Your task to perform on an android device: Open Google Chrome and open the bookmarks view Image 0: 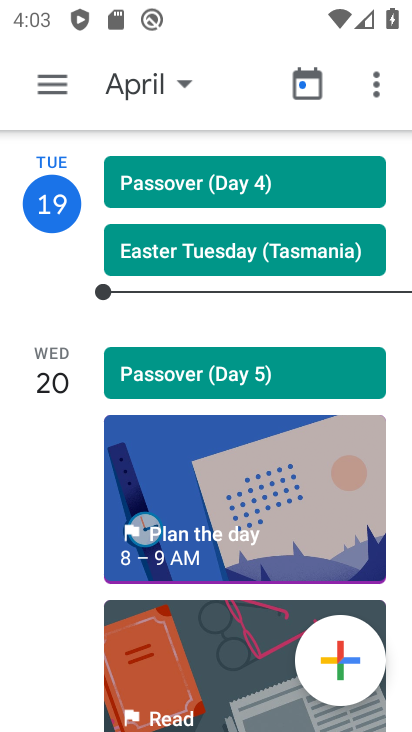
Step 0: press home button
Your task to perform on an android device: Open Google Chrome and open the bookmarks view Image 1: 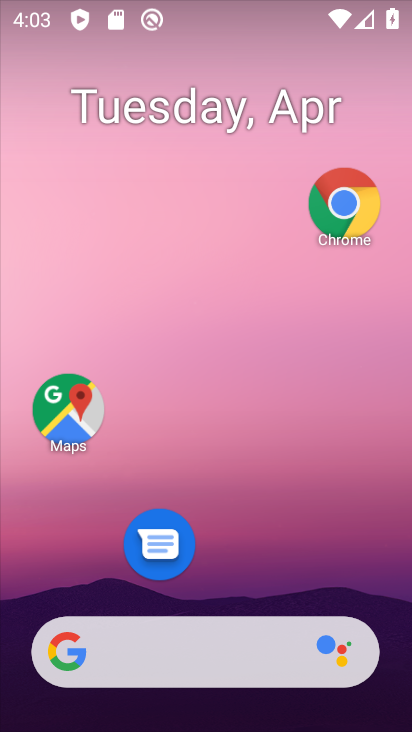
Step 1: click (360, 212)
Your task to perform on an android device: Open Google Chrome and open the bookmarks view Image 2: 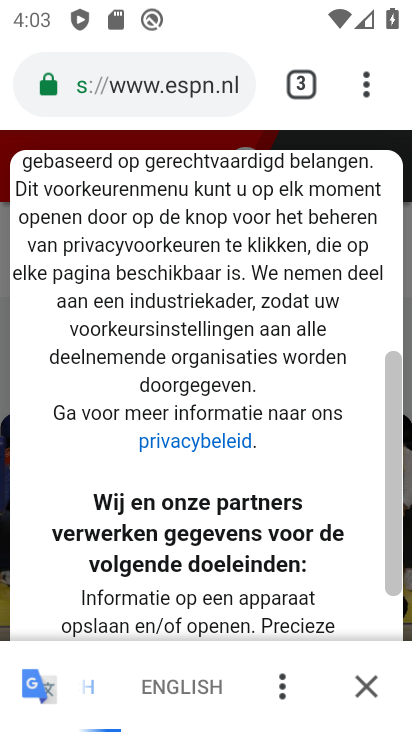
Step 2: click (365, 81)
Your task to perform on an android device: Open Google Chrome and open the bookmarks view Image 3: 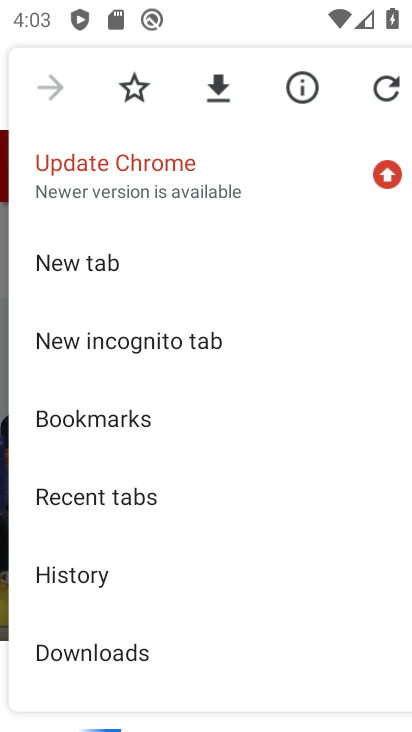
Step 3: drag from (167, 588) to (207, 228)
Your task to perform on an android device: Open Google Chrome and open the bookmarks view Image 4: 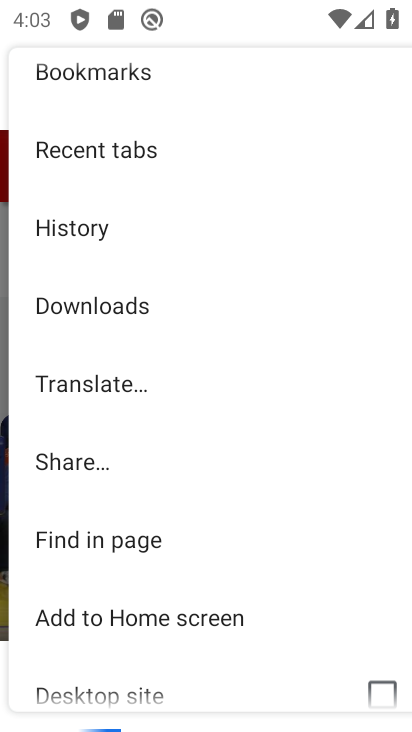
Step 4: click (121, 75)
Your task to perform on an android device: Open Google Chrome and open the bookmarks view Image 5: 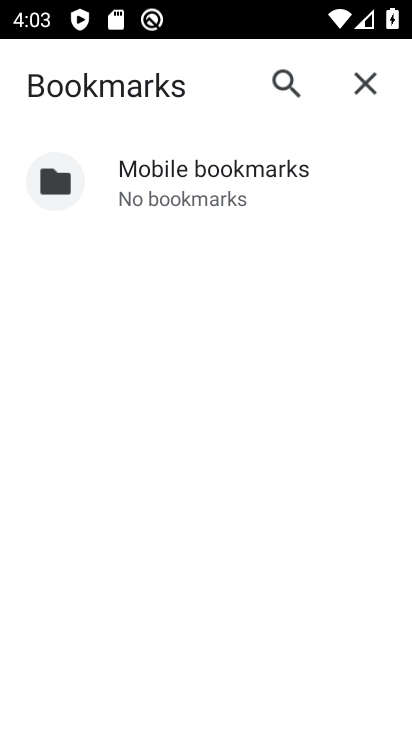
Step 5: click (246, 187)
Your task to perform on an android device: Open Google Chrome and open the bookmarks view Image 6: 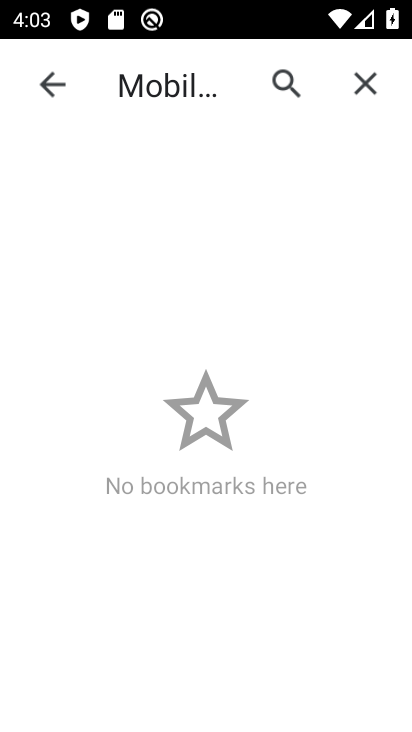
Step 6: task complete